Your task to perform on an android device: turn notification dots off Image 0: 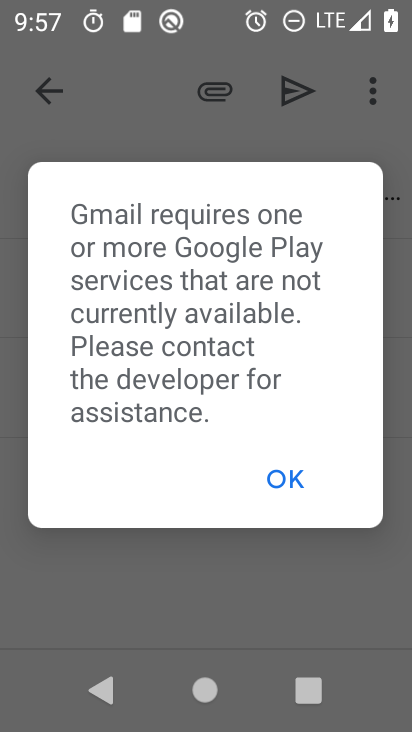
Step 0: click (298, 483)
Your task to perform on an android device: turn notification dots off Image 1: 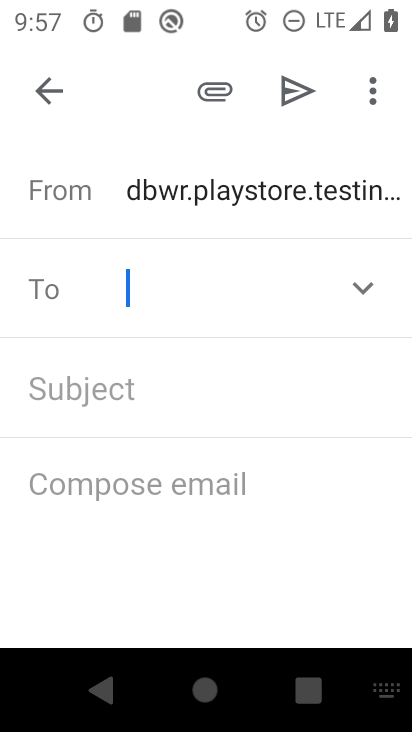
Step 1: press home button
Your task to perform on an android device: turn notification dots off Image 2: 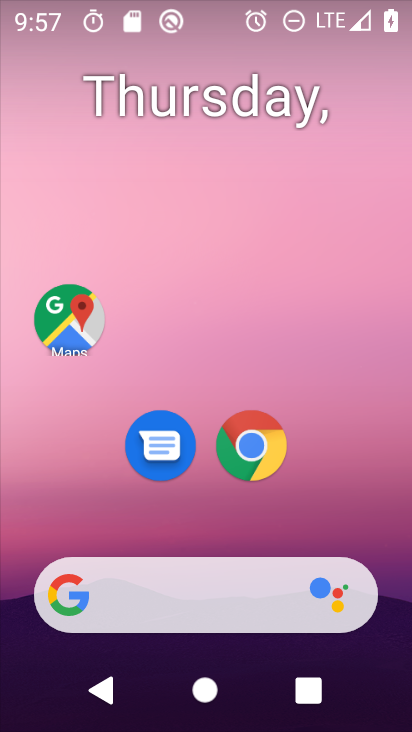
Step 2: drag from (212, 469) to (227, 58)
Your task to perform on an android device: turn notification dots off Image 3: 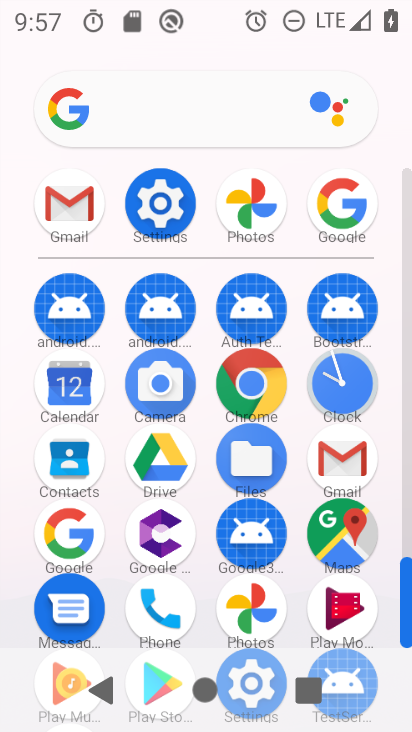
Step 3: click (134, 184)
Your task to perform on an android device: turn notification dots off Image 4: 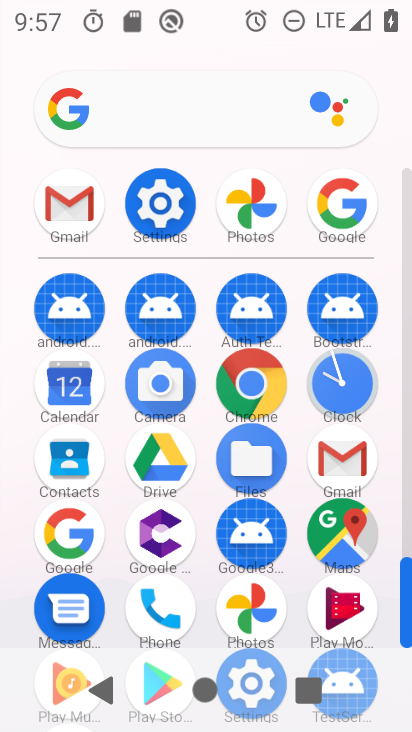
Step 4: click (134, 184)
Your task to perform on an android device: turn notification dots off Image 5: 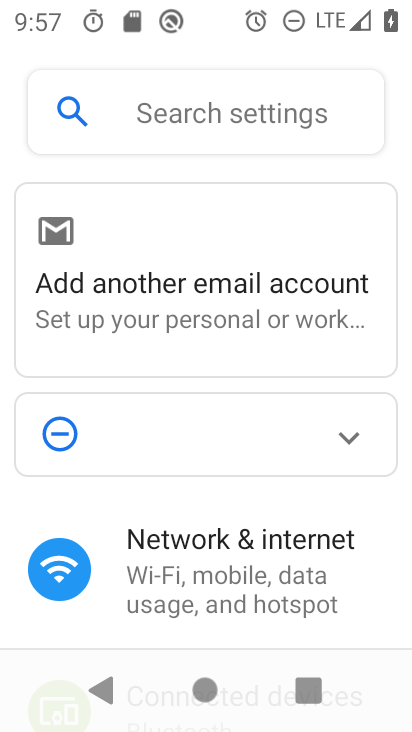
Step 5: drag from (236, 541) to (262, 81)
Your task to perform on an android device: turn notification dots off Image 6: 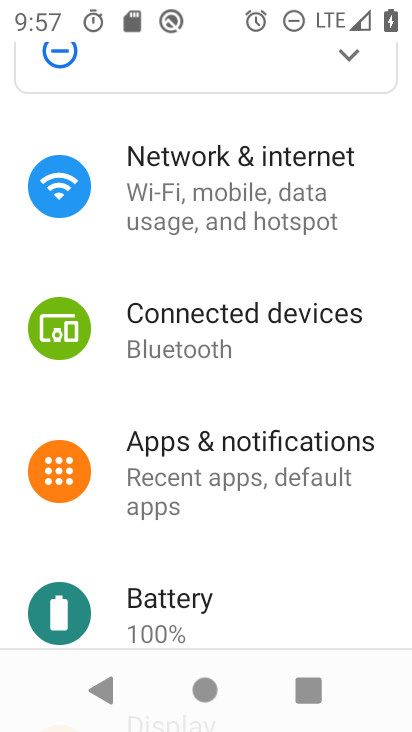
Step 6: click (226, 475)
Your task to perform on an android device: turn notification dots off Image 7: 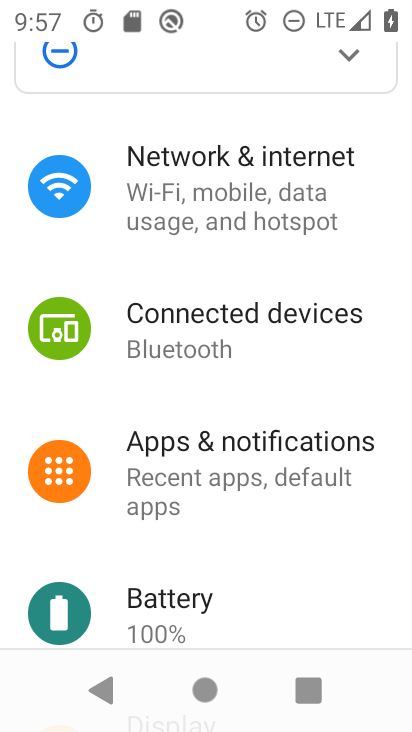
Step 7: click (226, 475)
Your task to perform on an android device: turn notification dots off Image 8: 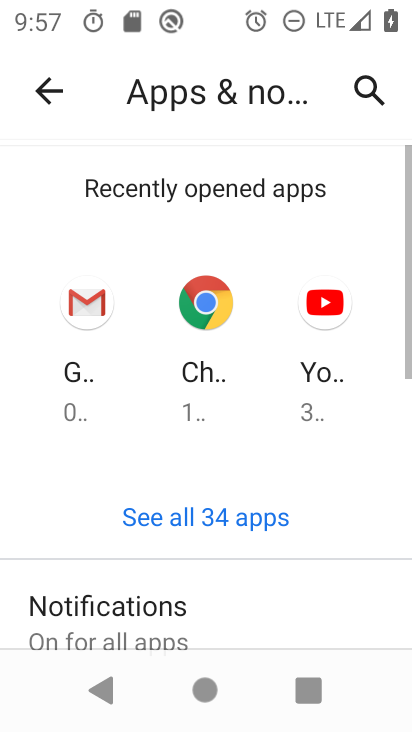
Step 8: drag from (244, 589) to (242, 133)
Your task to perform on an android device: turn notification dots off Image 9: 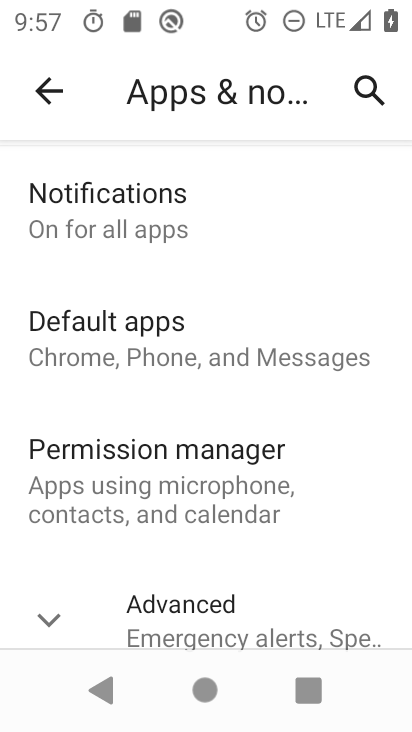
Step 9: click (154, 202)
Your task to perform on an android device: turn notification dots off Image 10: 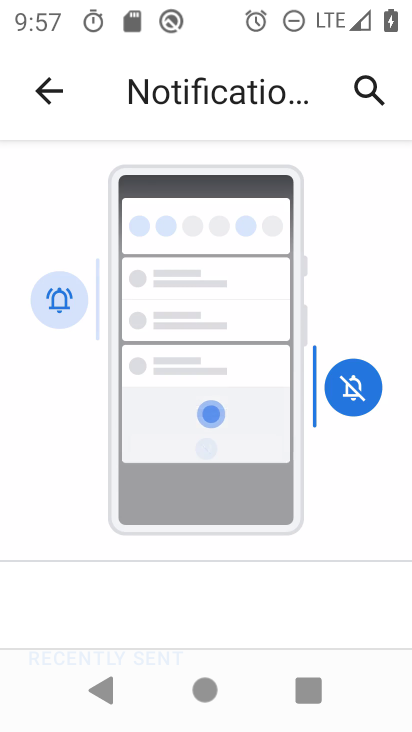
Step 10: drag from (198, 582) to (214, 135)
Your task to perform on an android device: turn notification dots off Image 11: 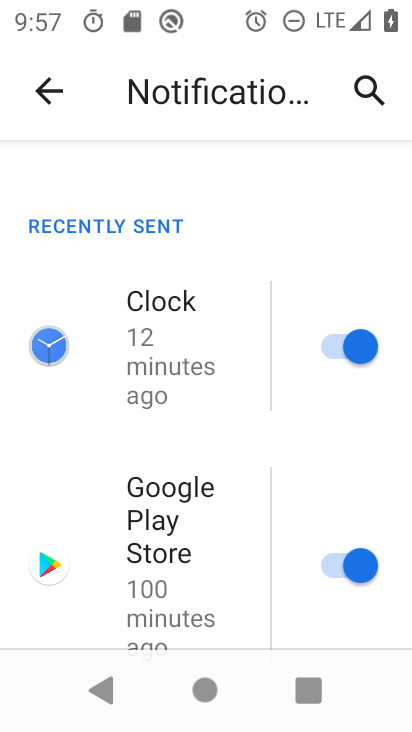
Step 11: drag from (242, 517) to (270, 138)
Your task to perform on an android device: turn notification dots off Image 12: 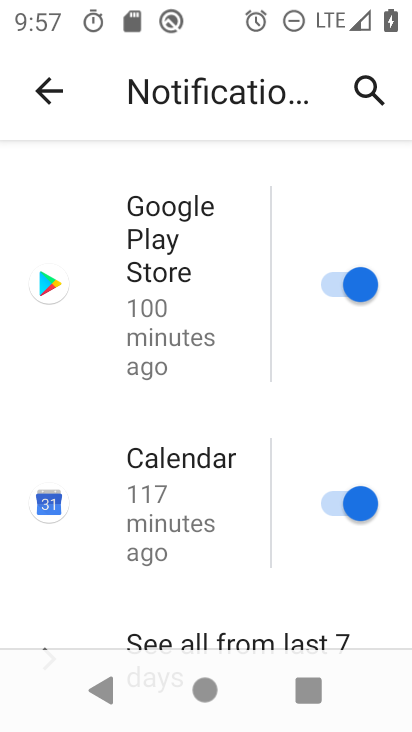
Step 12: drag from (212, 558) to (231, 93)
Your task to perform on an android device: turn notification dots off Image 13: 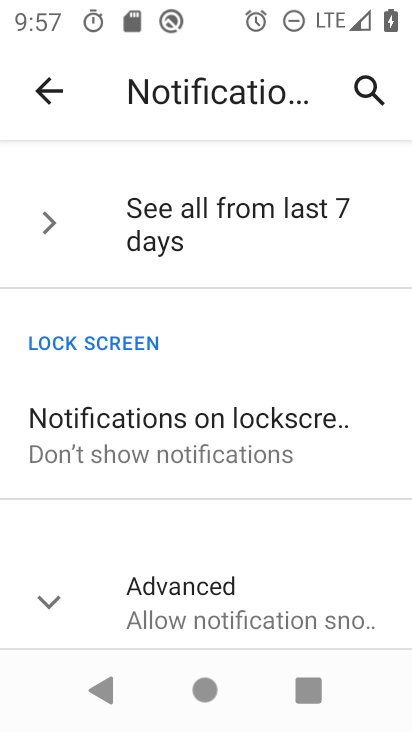
Step 13: click (215, 599)
Your task to perform on an android device: turn notification dots off Image 14: 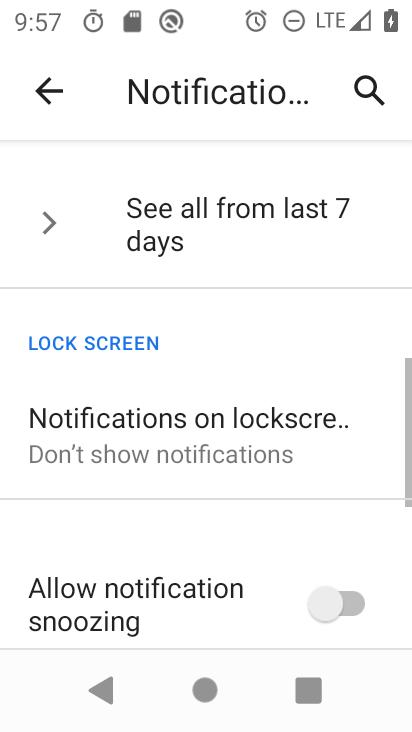
Step 14: drag from (222, 581) to (209, 104)
Your task to perform on an android device: turn notification dots off Image 15: 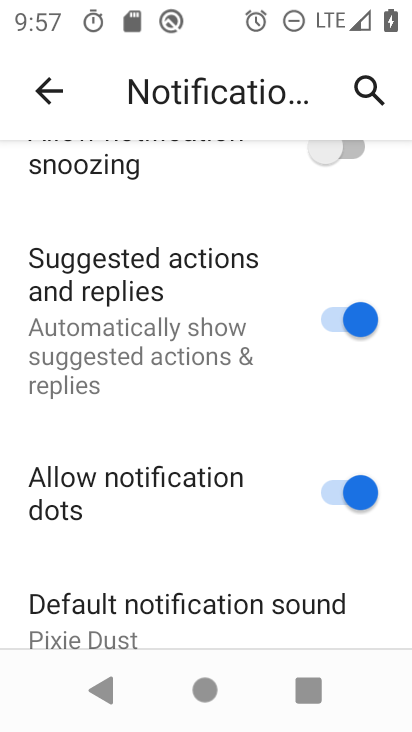
Step 15: click (323, 482)
Your task to perform on an android device: turn notification dots off Image 16: 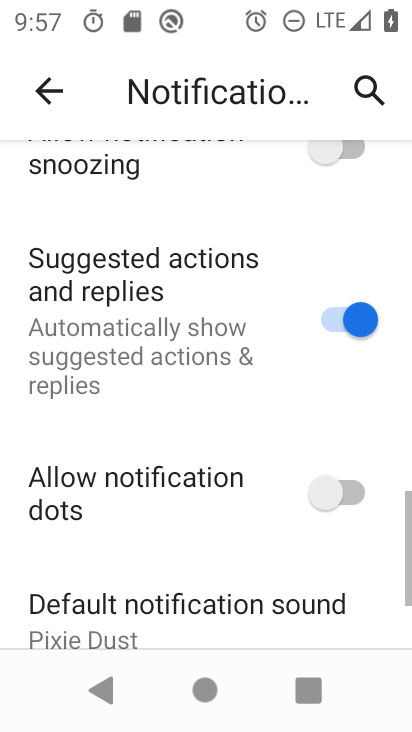
Step 16: task complete